Your task to perform on an android device: set the stopwatch Image 0: 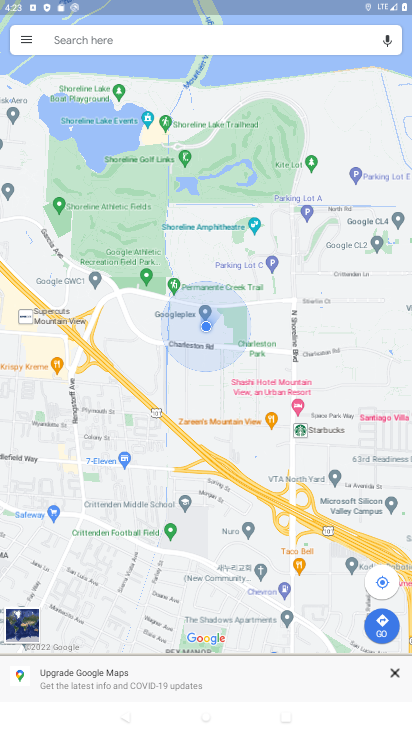
Step 0: press home button
Your task to perform on an android device: set the stopwatch Image 1: 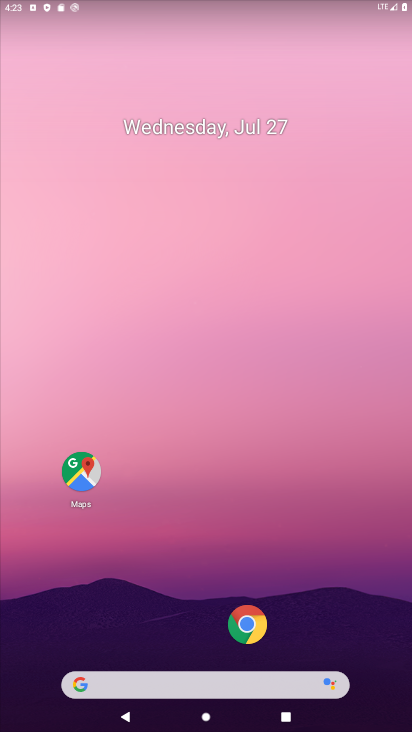
Step 1: drag from (159, 605) to (246, 36)
Your task to perform on an android device: set the stopwatch Image 2: 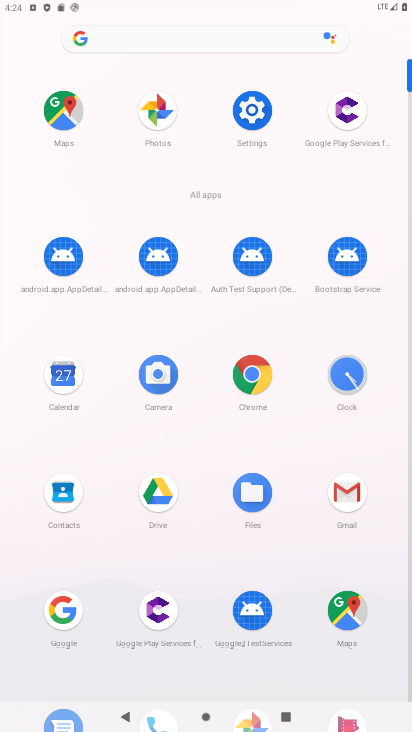
Step 2: click (350, 389)
Your task to perform on an android device: set the stopwatch Image 3: 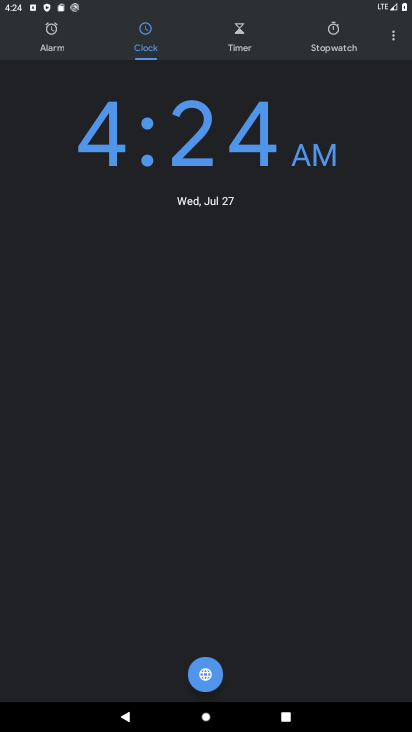
Step 3: click (339, 38)
Your task to perform on an android device: set the stopwatch Image 4: 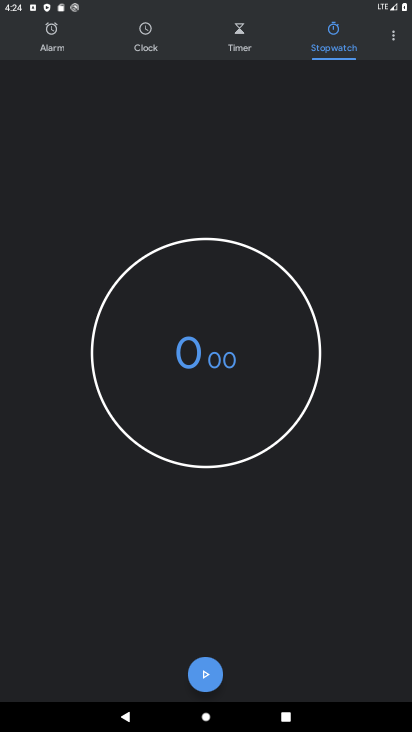
Step 4: task complete